Your task to perform on an android device: Open calendar and show me the second week of next month Image 0: 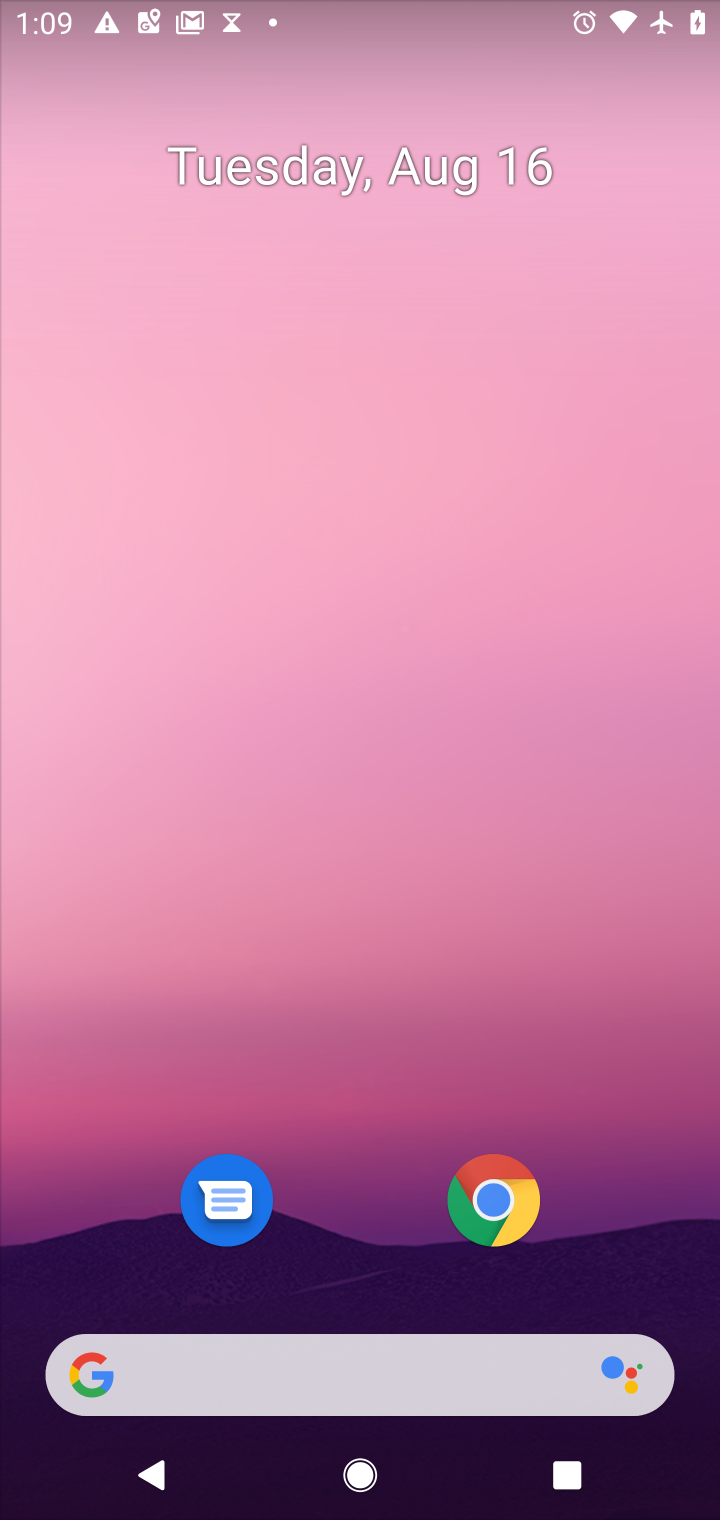
Step 0: drag from (354, 972) to (288, 237)
Your task to perform on an android device: Open calendar and show me the second week of next month Image 1: 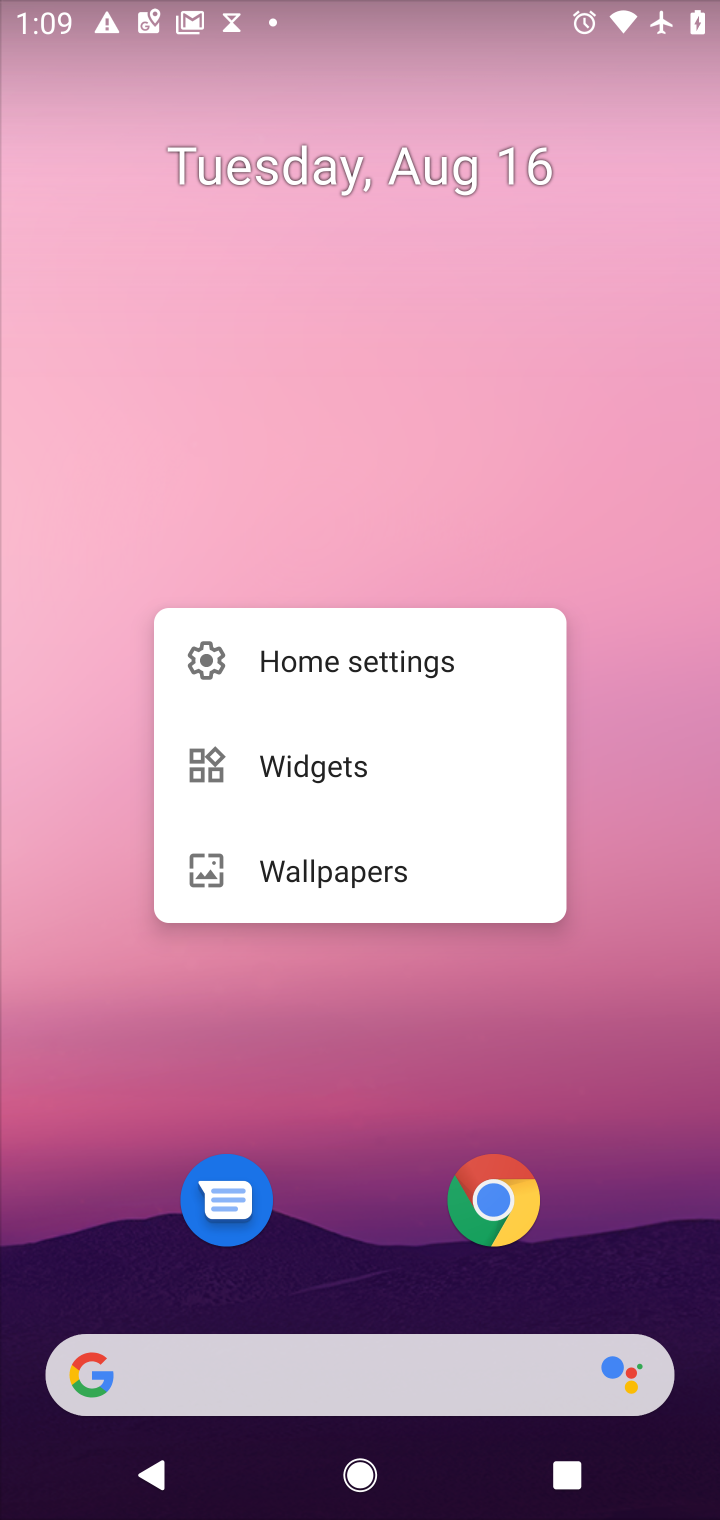
Step 1: click (347, 1015)
Your task to perform on an android device: Open calendar and show me the second week of next month Image 2: 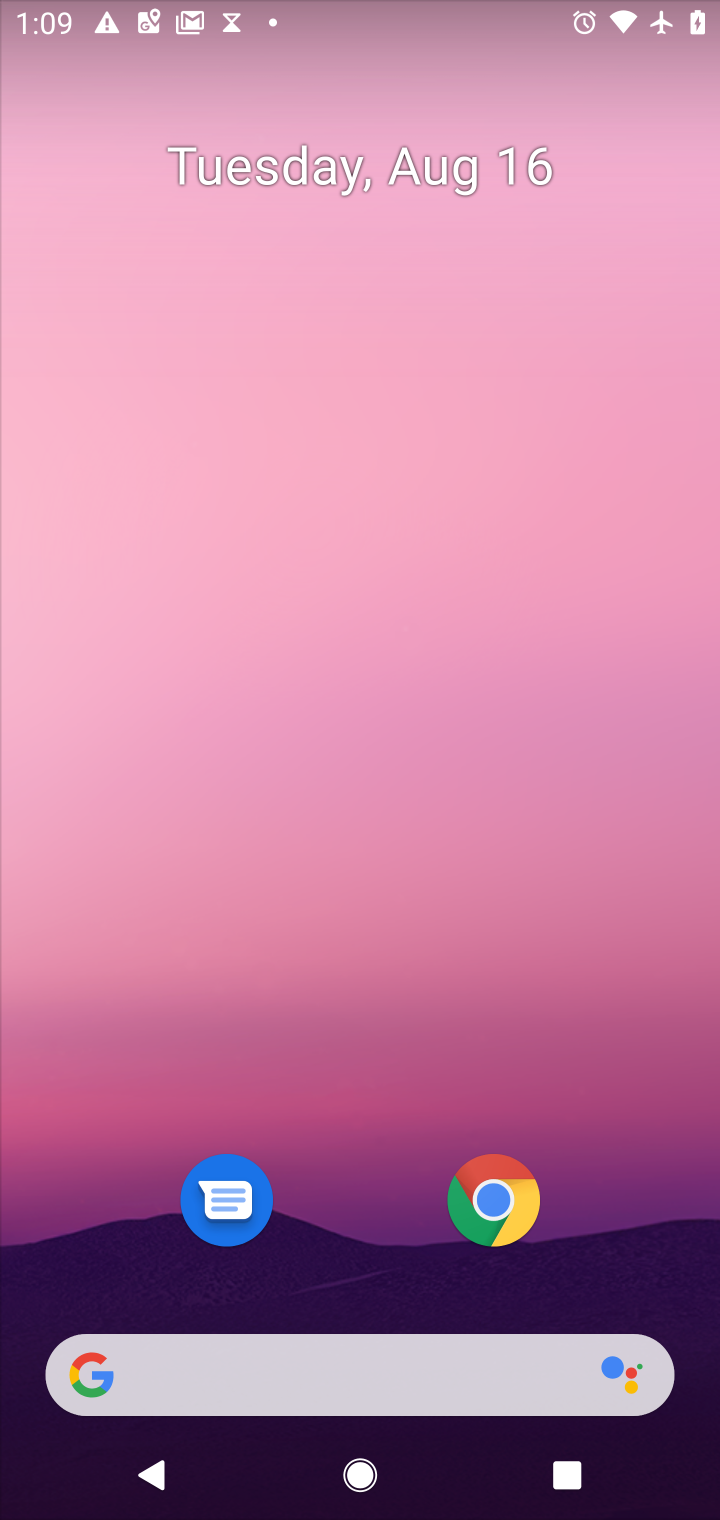
Step 2: drag from (354, 1082) to (311, 242)
Your task to perform on an android device: Open calendar and show me the second week of next month Image 3: 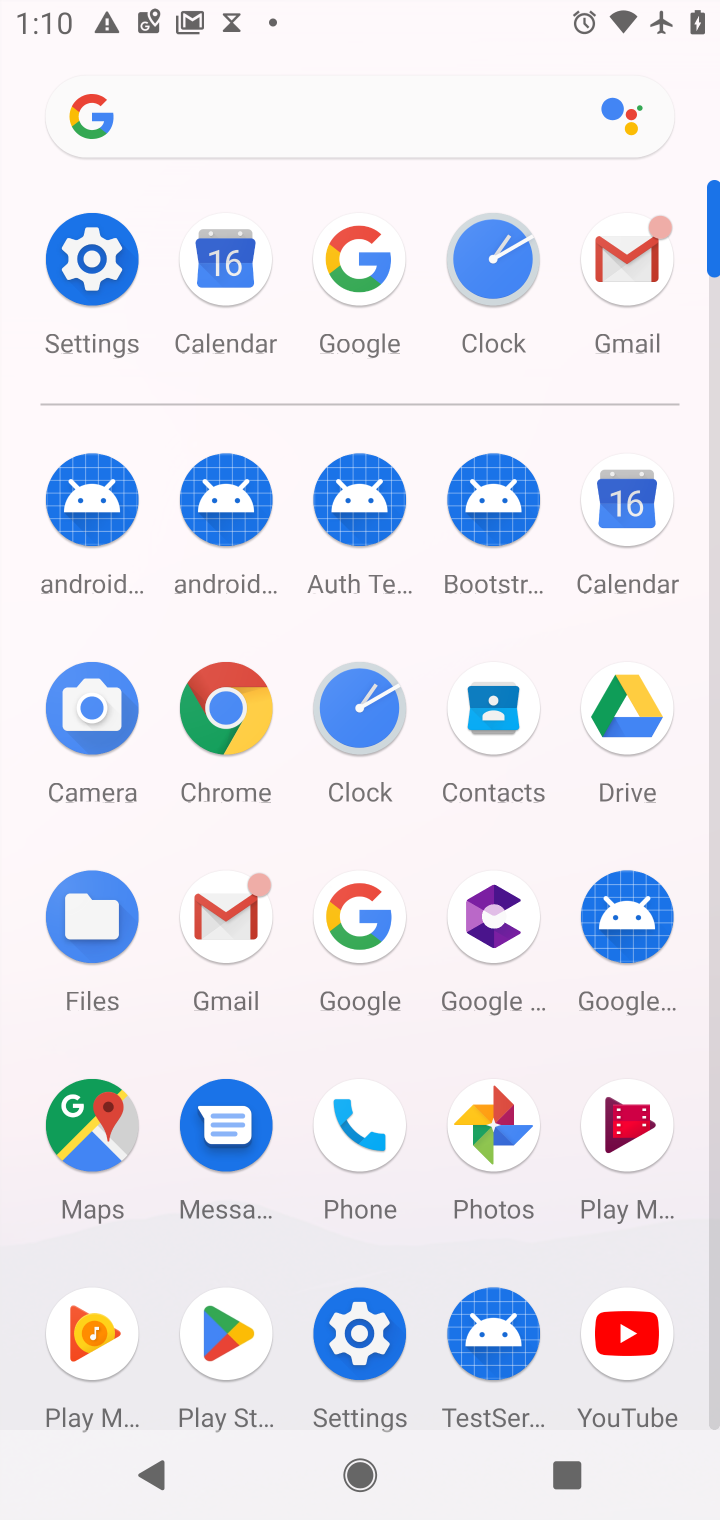
Step 3: click (625, 507)
Your task to perform on an android device: Open calendar and show me the second week of next month Image 4: 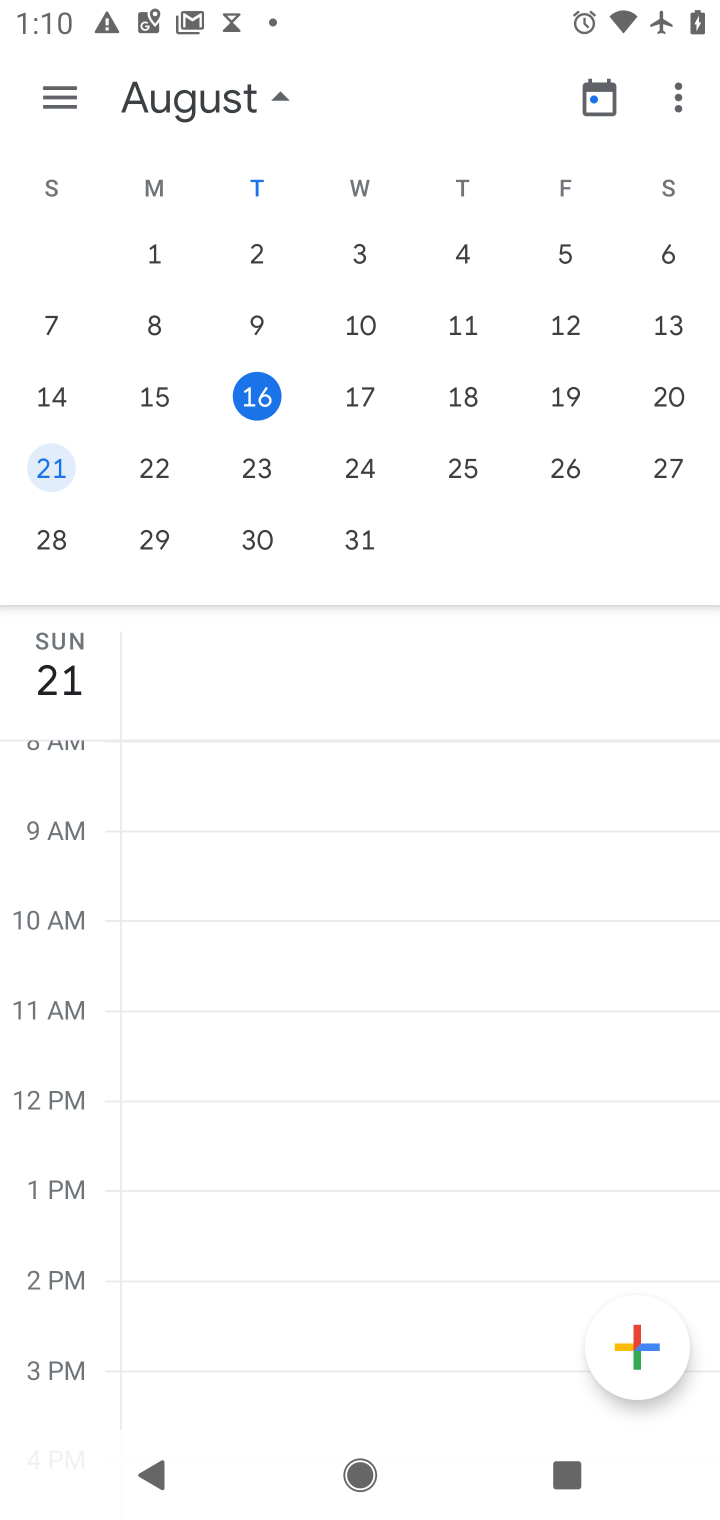
Step 4: drag from (578, 360) to (3, 341)
Your task to perform on an android device: Open calendar and show me the second week of next month Image 5: 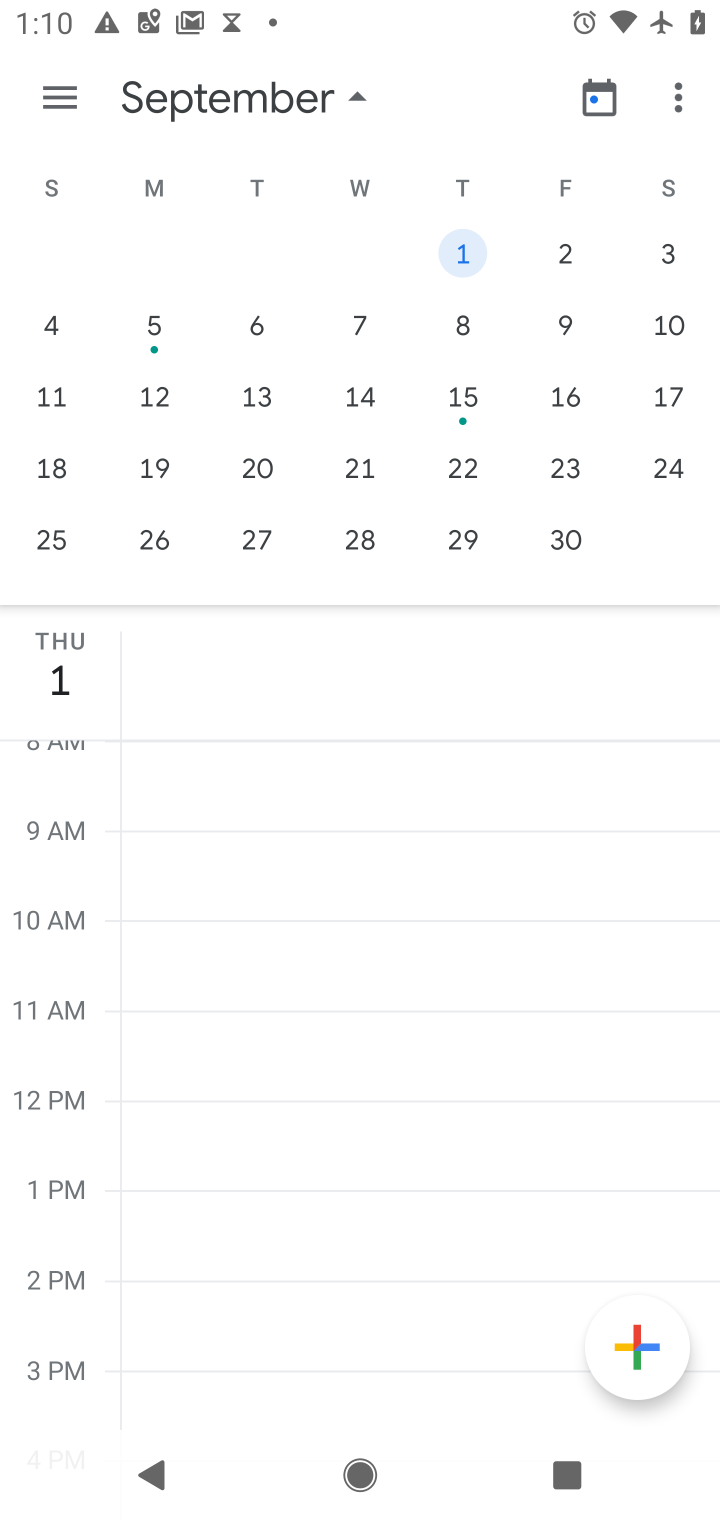
Step 5: click (57, 321)
Your task to perform on an android device: Open calendar and show me the second week of next month Image 6: 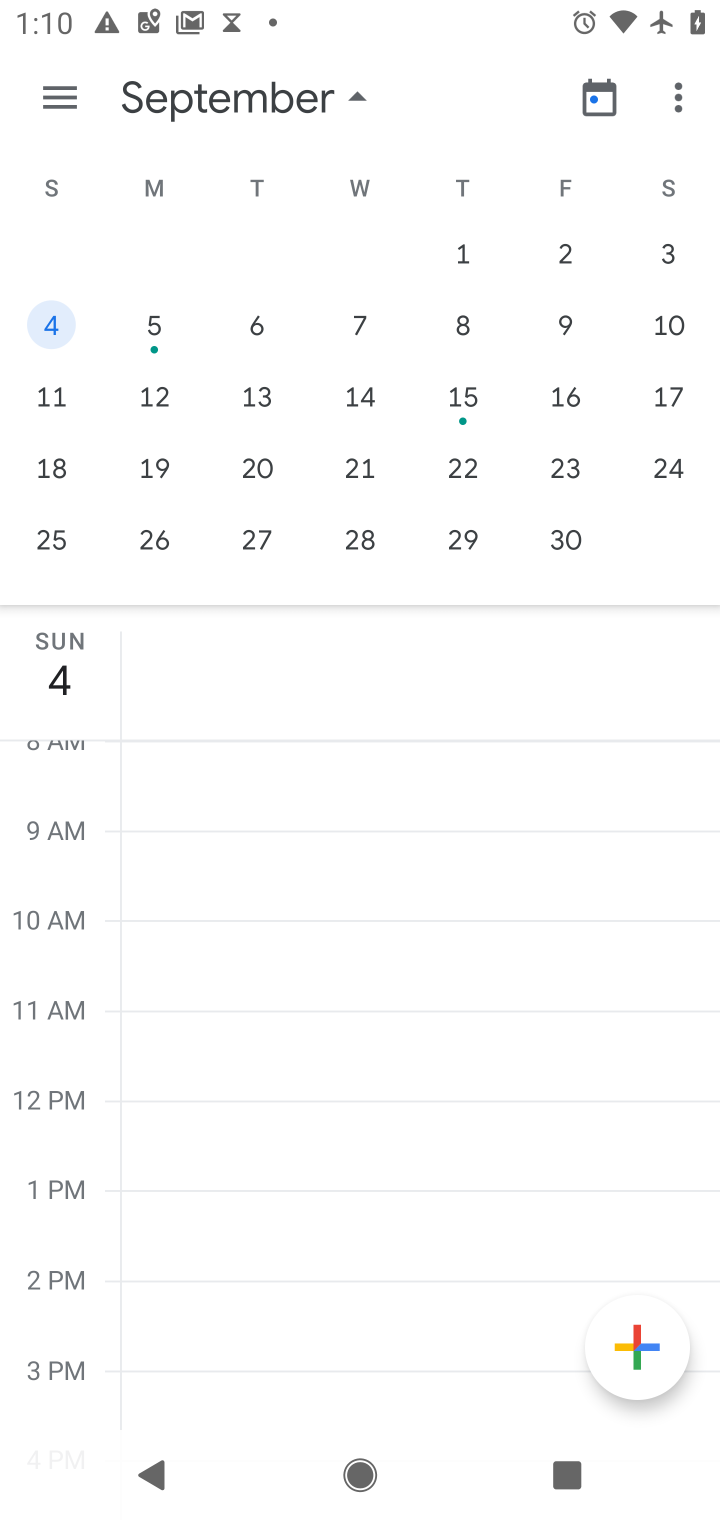
Step 6: task complete